Your task to perform on an android device: all mails in gmail Image 0: 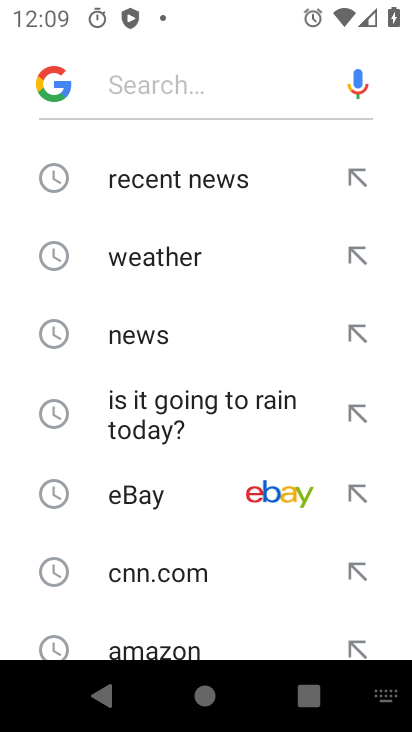
Step 0: press back button
Your task to perform on an android device: all mails in gmail Image 1: 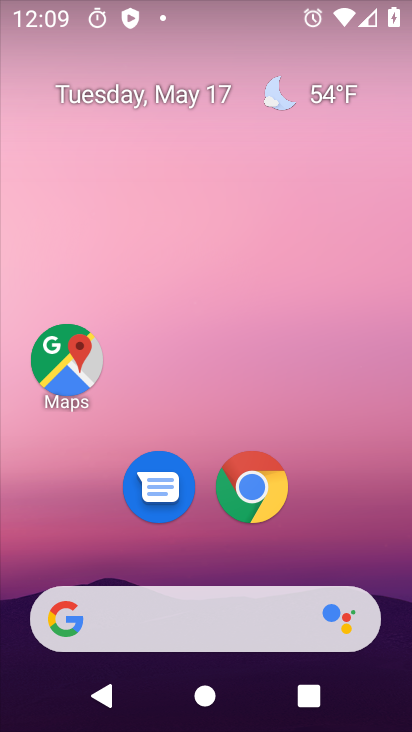
Step 1: drag from (156, 588) to (224, 92)
Your task to perform on an android device: all mails in gmail Image 2: 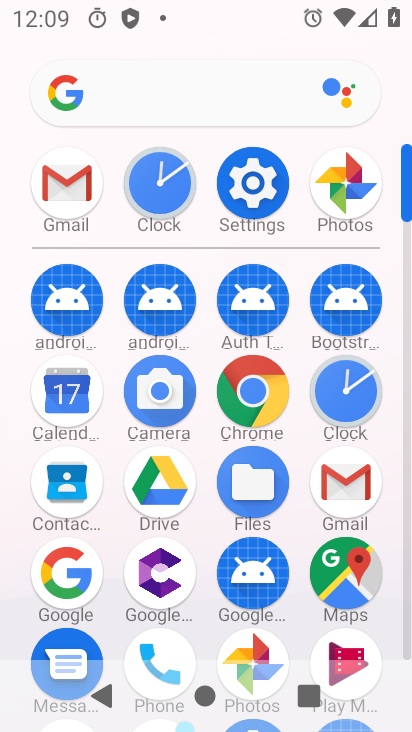
Step 2: click (67, 180)
Your task to perform on an android device: all mails in gmail Image 3: 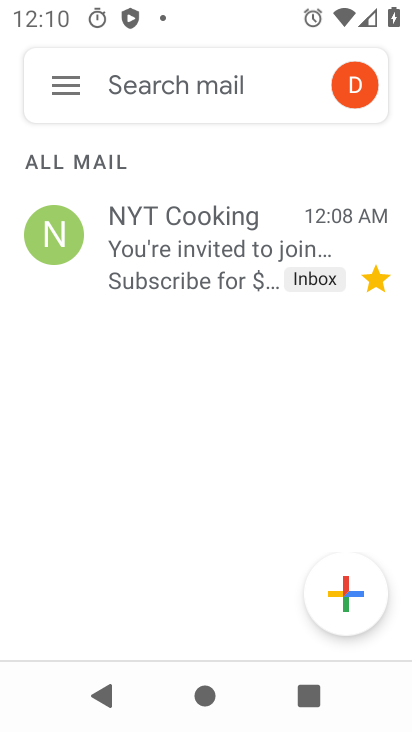
Step 3: task complete